Your task to perform on an android device: change notifications settings Image 0: 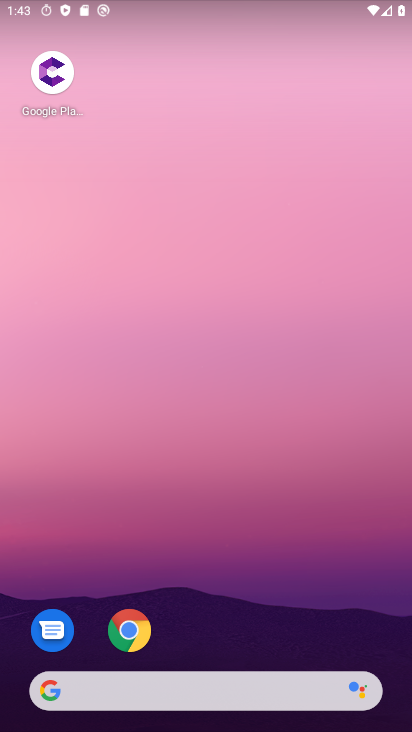
Step 0: drag from (268, 711) to (185, 150)
Your task to perform on an android device: change notifications settings Image 1: 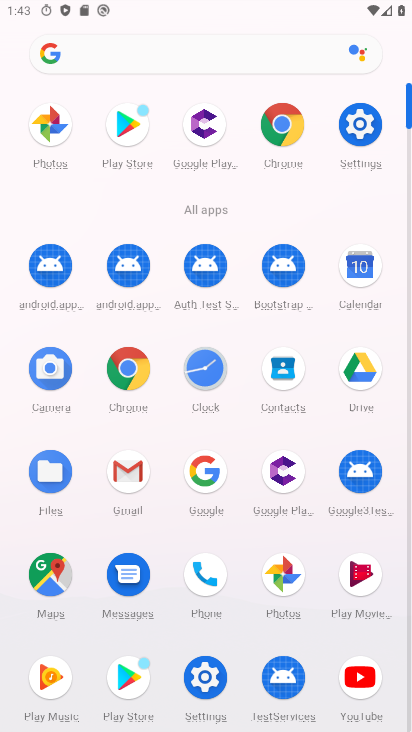
Step 1: click (357, 122)
Your task to perform on an android device: change notifications settings Image 2: 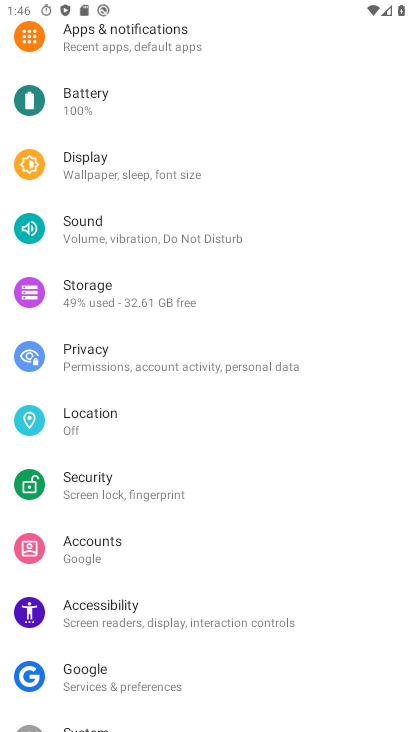
Step 2: click (115, 233)
Your task to perform on an android device: change notifications settings Image 3: 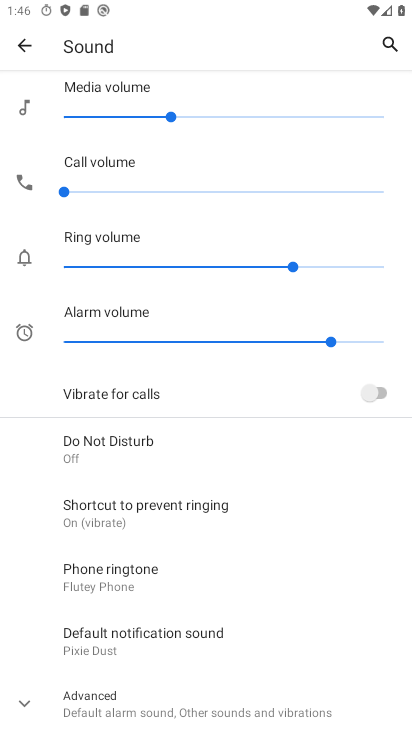
Step 3: click (384, 393)
Your task to perform on an android device: change notifications settings Image 4: 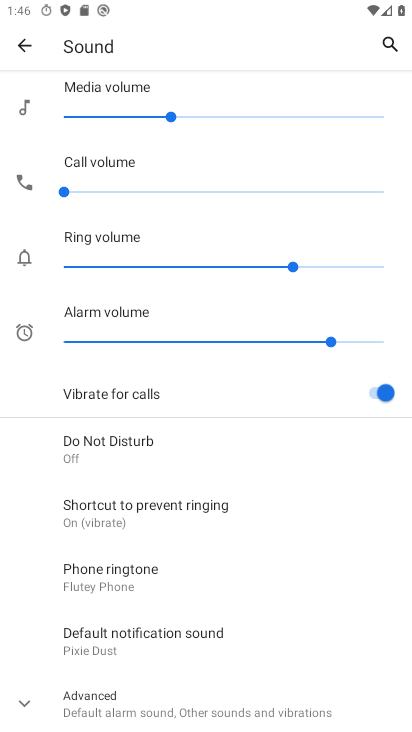
Step 4: task complete